Your task to perform on an android device: Turn on notifications for the Google Maps app Image 0: 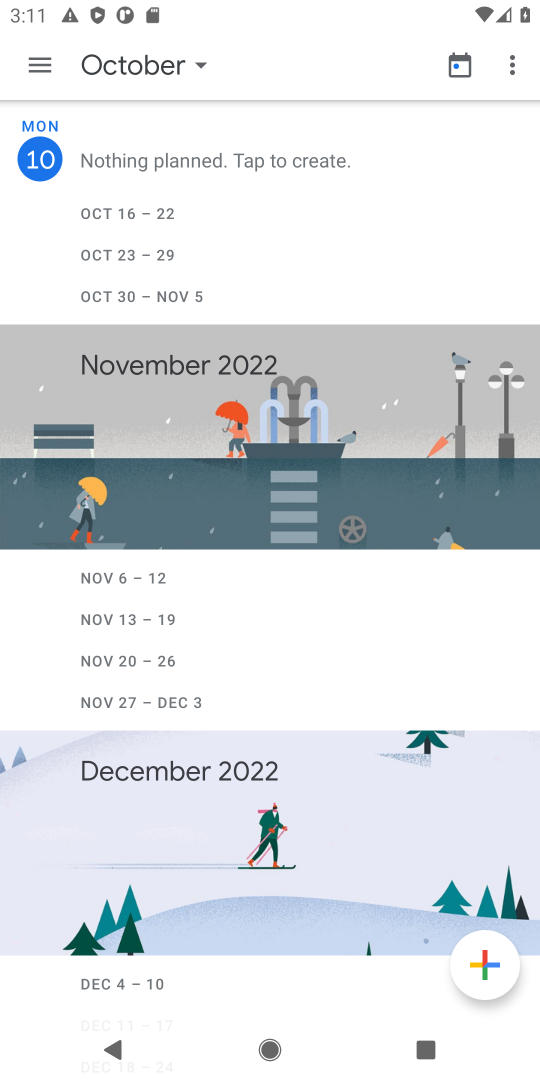
Step 0: press home button
Your task to perform on an android device: Turn on notifications for the Google Maps app Image 1: 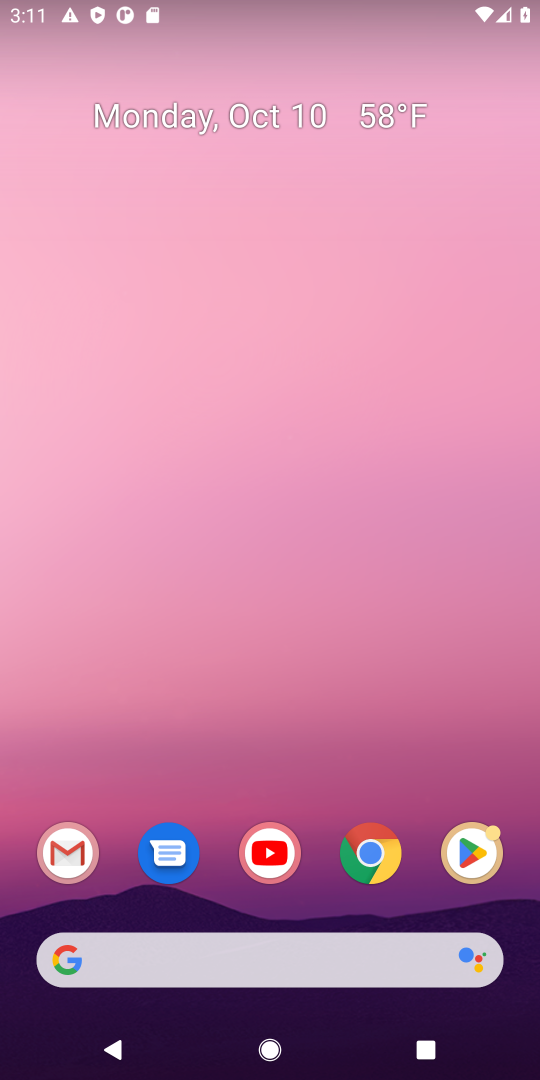
Step 1: drag from (181, 923) to (356, 6)
Your task to perform on an android device: Turn on notifications for the Google Maps app Image 2: 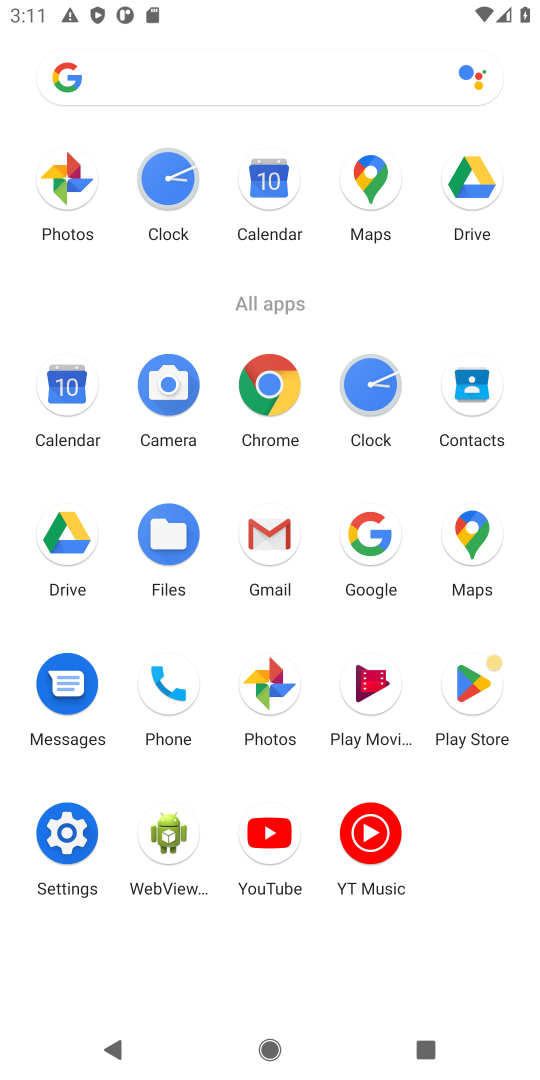
Step 2: click (461, 527)
Your task to perform on an android device: Turn on notifications for the Google Maps app Image 3: 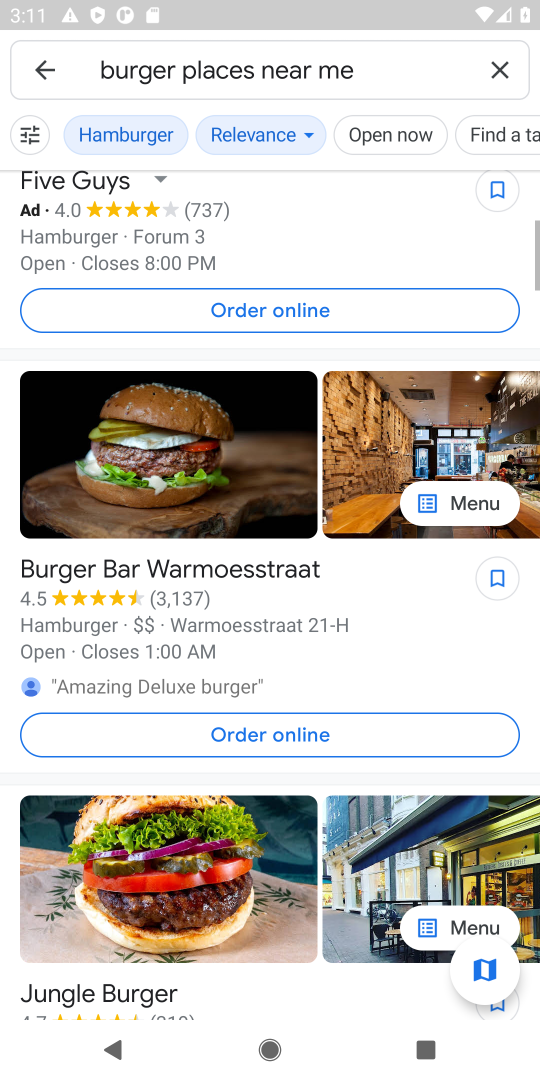
Step 3: press home button
Your task to perform on an android device: Turn on notifications for the Google Maps app Image 4: 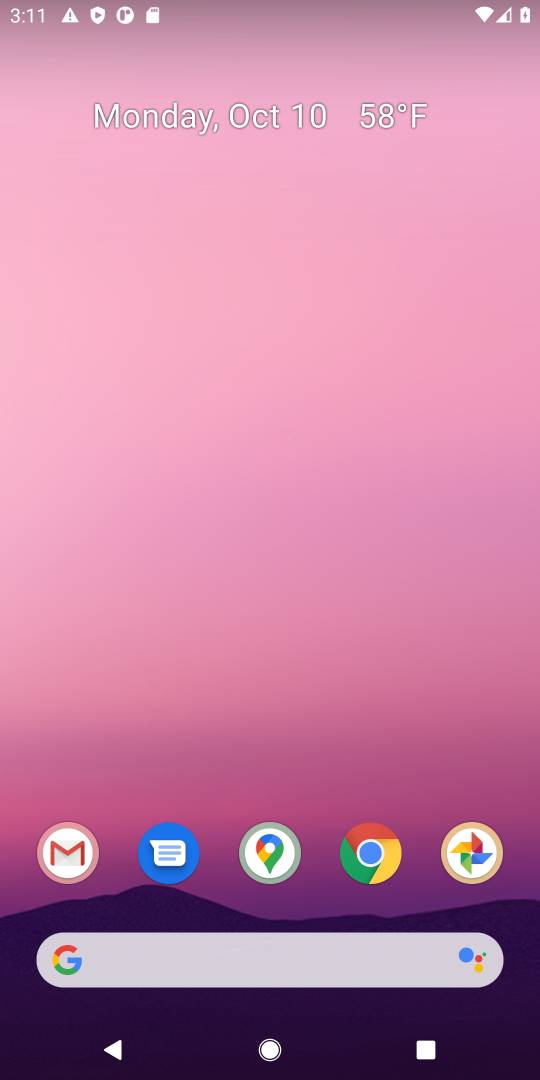
Step 4: click (270, 840)
Your task to perform on an android device: Turn on notifications for the Google Maps app Image 5: 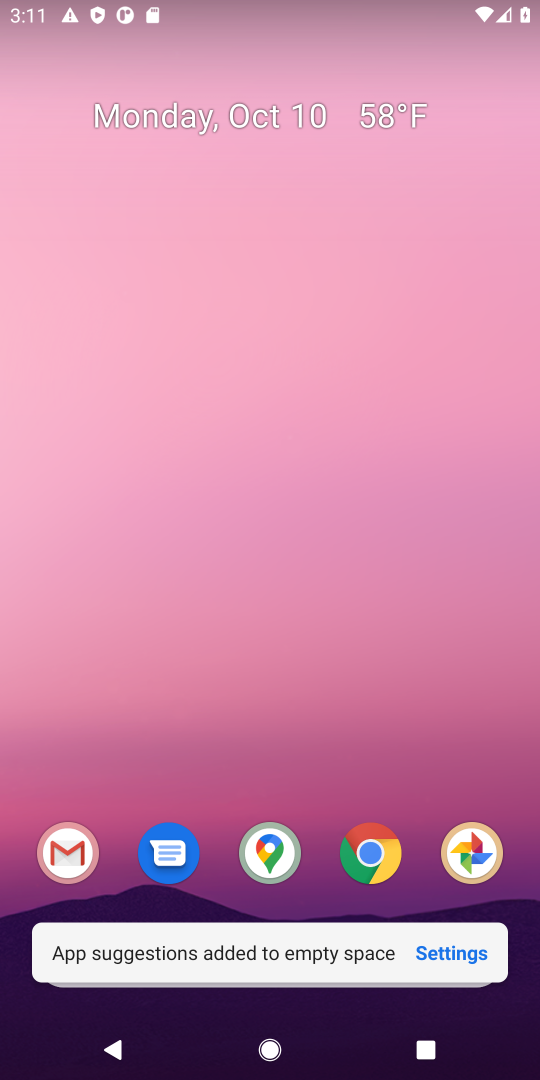
Step 5: drag from (280, 777) to (426, 33)
Your task to perform on an android device: Turn on notifications for the Google Maps app Image 6: 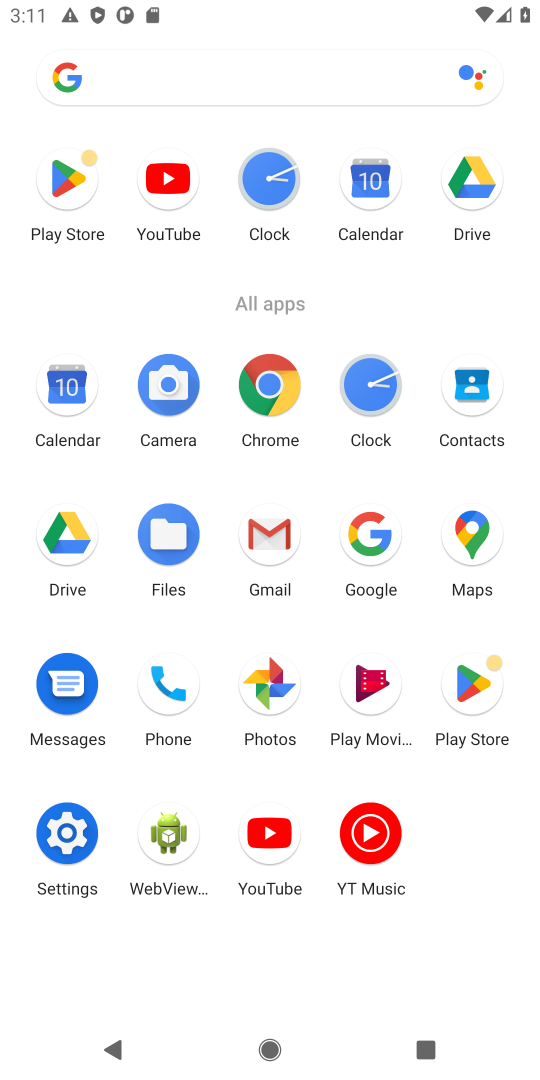
Step 6: click (465, 531)
Your task to perform on an android device: Turn on notifications for the Google Maps app Image 7: 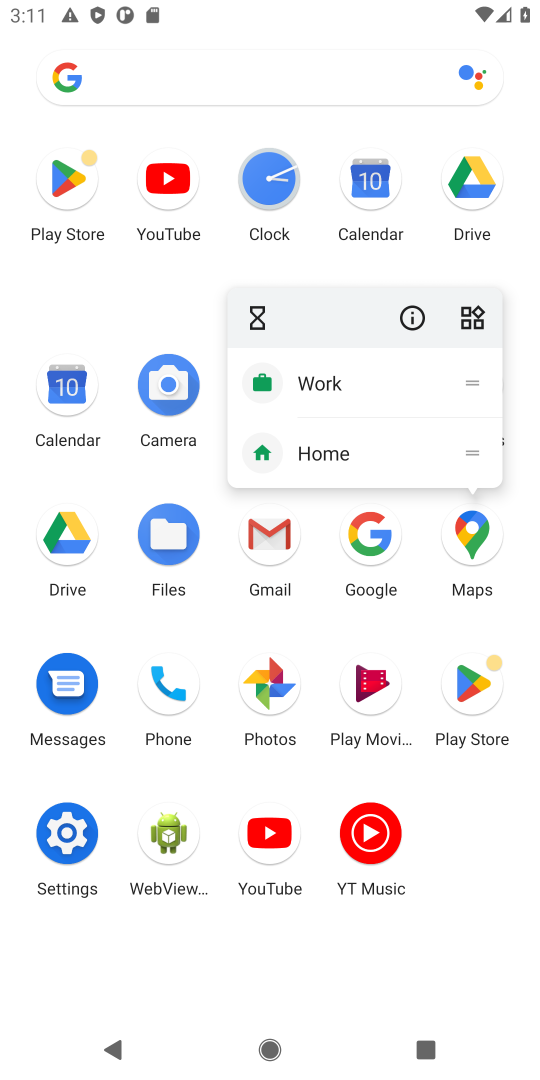
Step 7: click (417, 308)
Your task to perform on an android device: Turn on notifications for the Google Maps app Image 8: 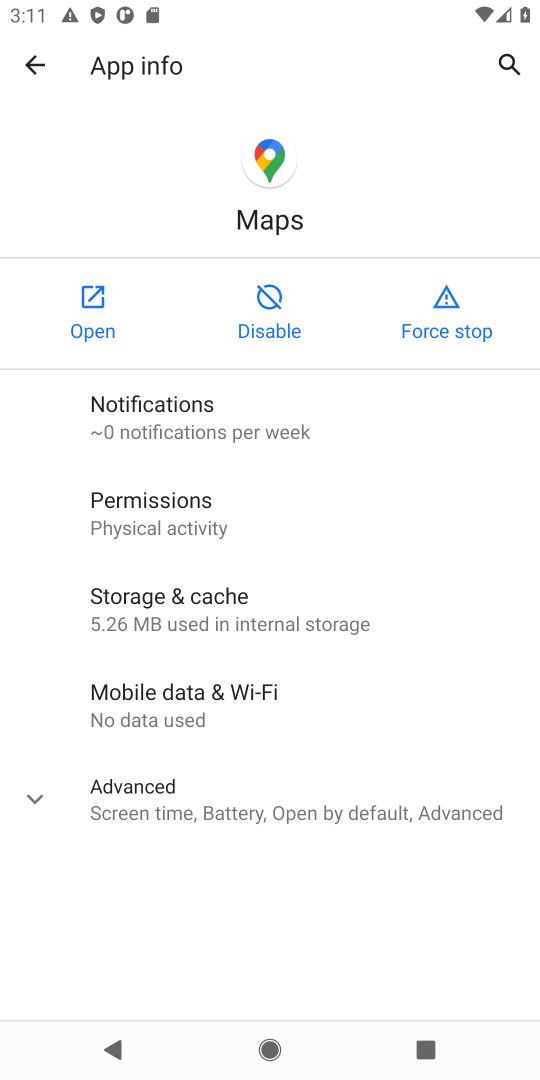
Step 8: click (224, 395)
Your task to perform on an android device: Turn on notifications for the Google Maps app Image 9: 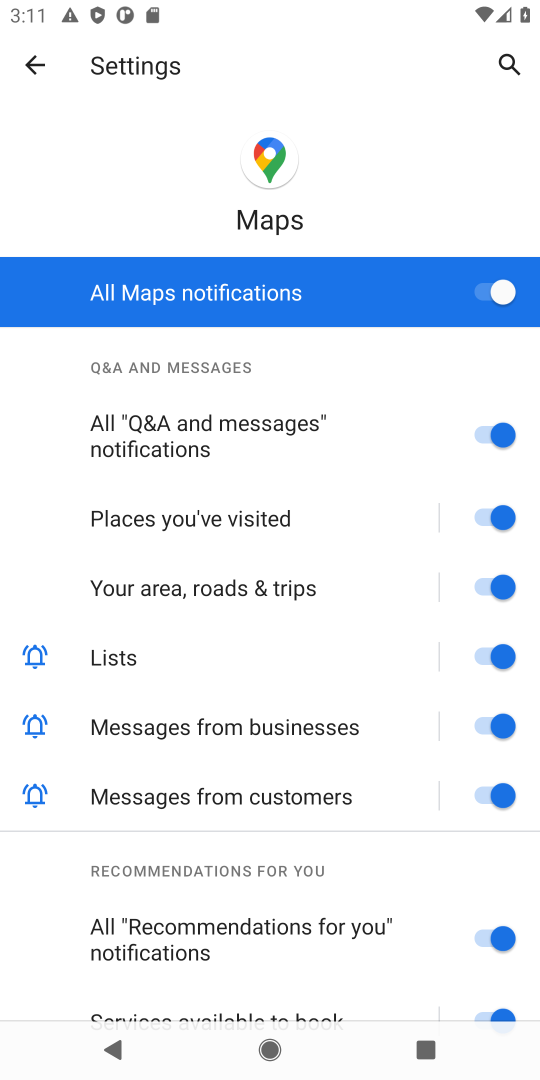
Step 9: task complete